Your task to perform on an android device: set default search engine in the chrome app Image 0: 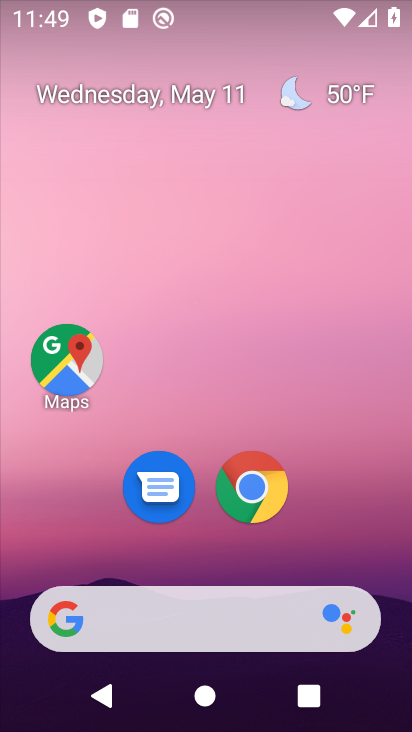
Step 0: click (261, 488)
Your task to perform on an android device: set default search engine in the chrome app Image 1: 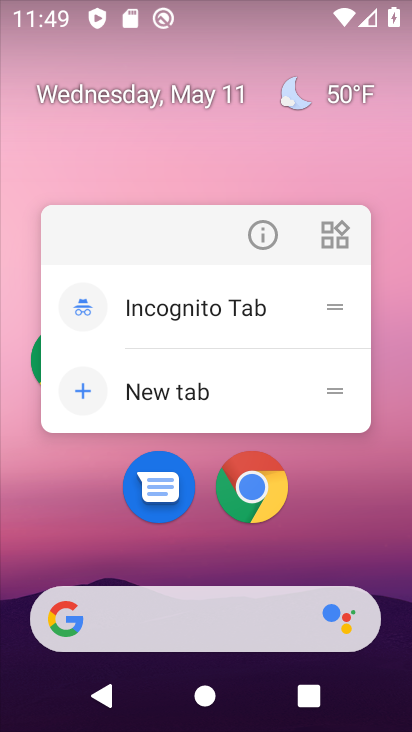
Step 1: click (261, 488)
Your task to perform on an android device: set default search engine in the chrome app Image 2: 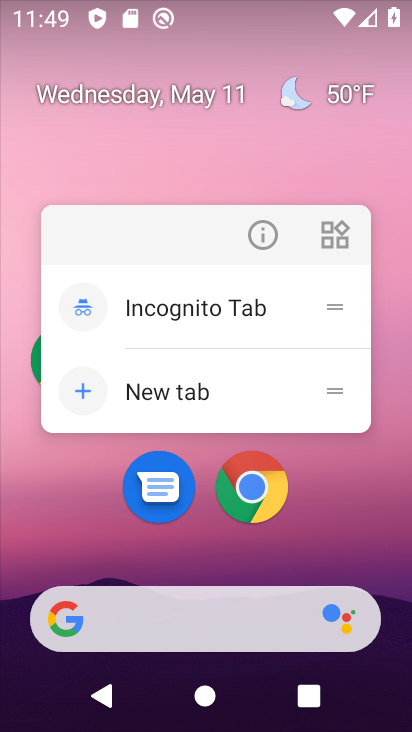
Step 2: click (261, 488)
Your task to perform on an android device: set default search engine in the chrome app Image 3: 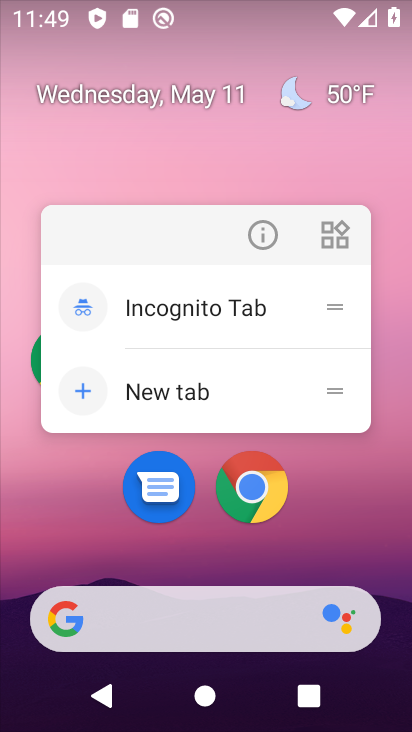
Step 3: click (261, 488)
Your task to perform on an android device: set default search engine in the chrome app Image 4: 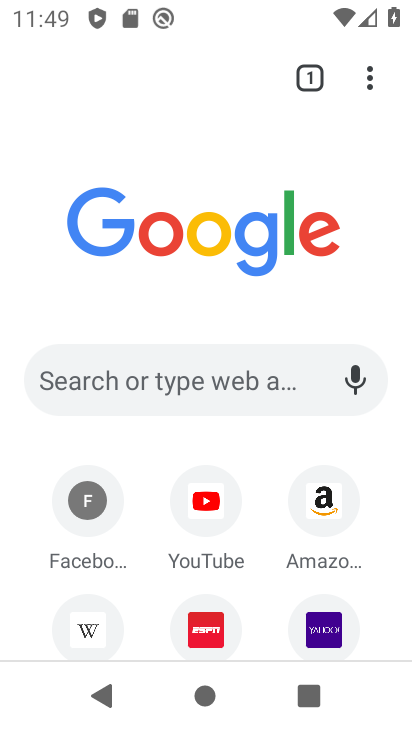
Step 4: click (362, 77)
Your task to perform on an android device: set default search engine in the chrome app Image 5: 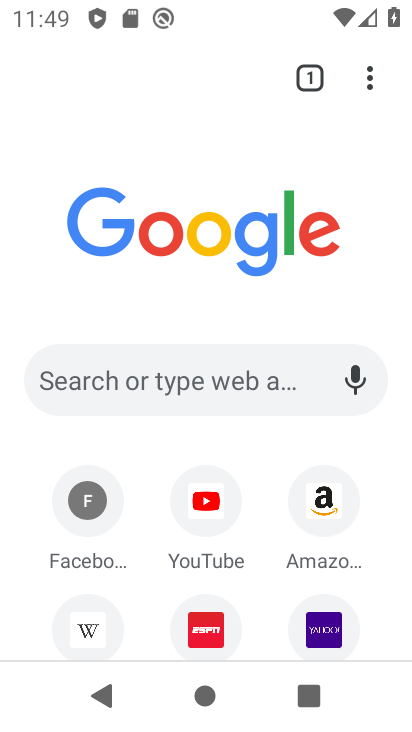
Step 5: click (375, 78)
Your task to perform on an android device: set default search engine in the chrome app Image 6: 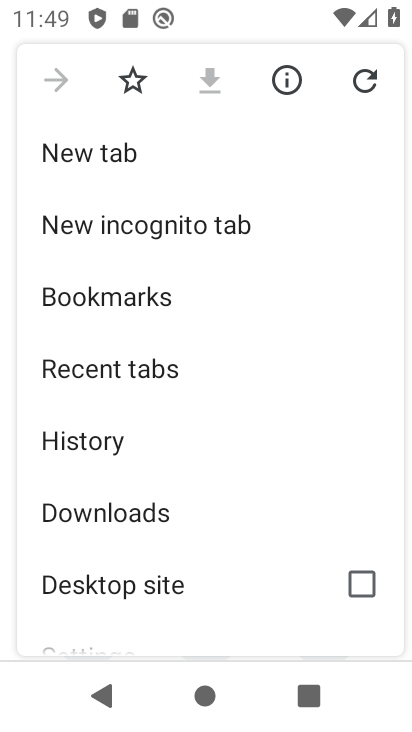
Step 6: drag from (65, 552) to (213, 188)
Your task to perform on an android device: set default search engine in the chrome app Image 7: 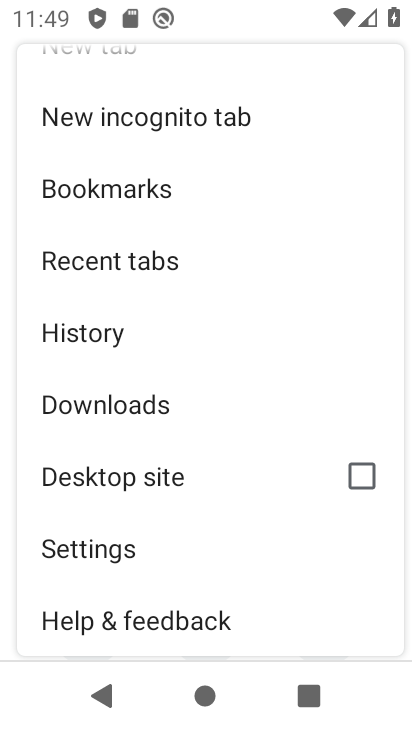
Step 7: click (43, 560)
Your task to perform on an android device: set default search engine in the chrome app Image 8: 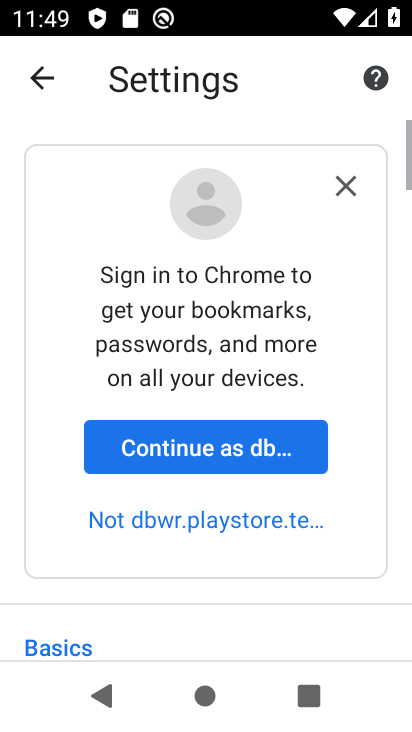
Step 8: drag from (191, 551) to (358, 102)
Your task to perform on an android device: set default search engine in the chrome app Image 9: 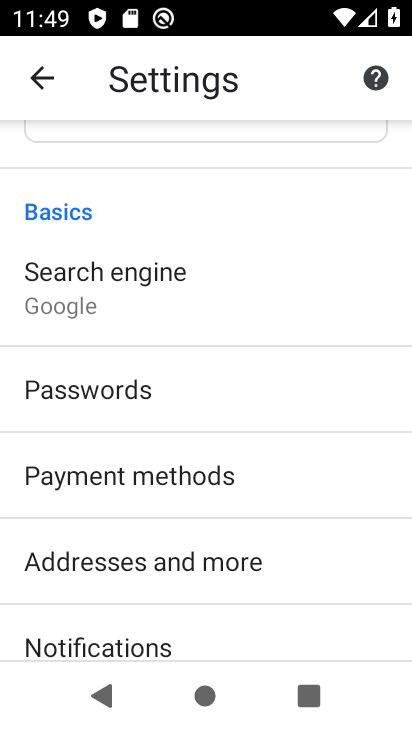
Step 9: click (135, 266)
Your task to perform on an android device: set default search engine in the chrome app Image 10: 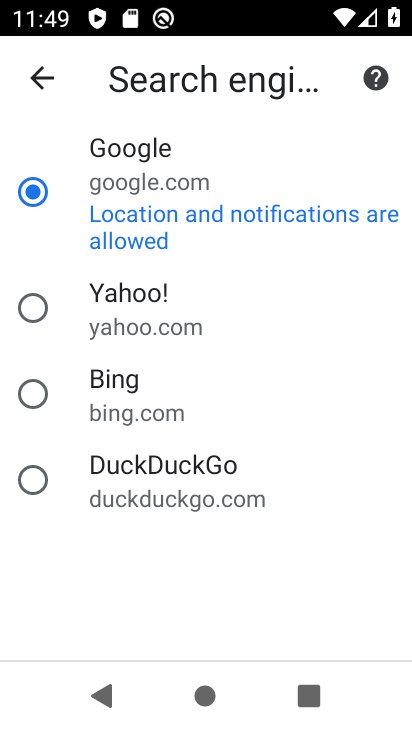
Step 10: task complete